Your task to perform on an android device: Open location settings Image 0: 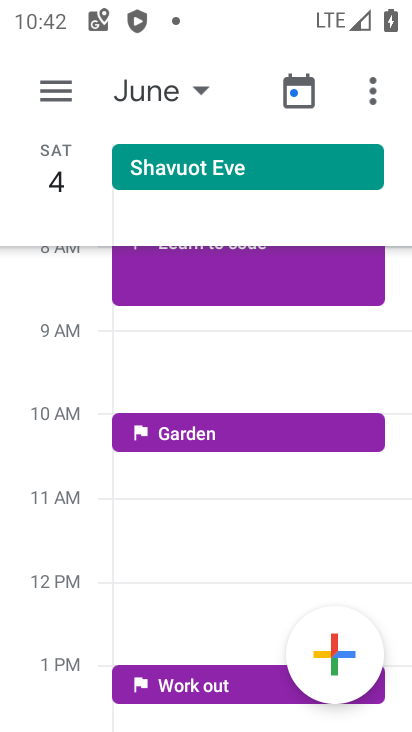
Step 0: press home button
Your task to perform on an android device: Open location settings Image 1: 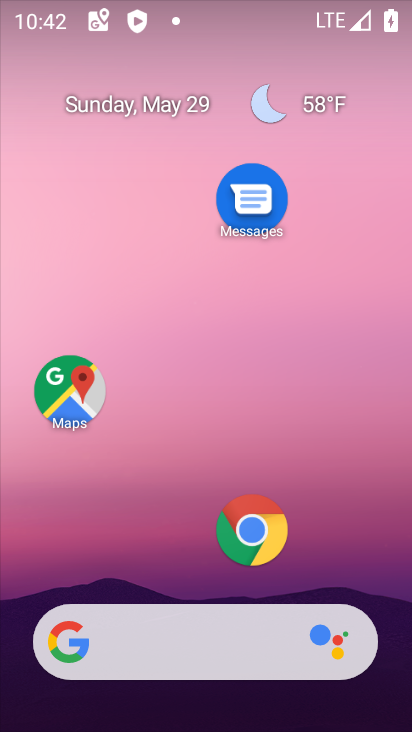
Step 1: drag from (217, 529) to (242, 33)
Your task to perform on an android device: Open location settings Image 2: 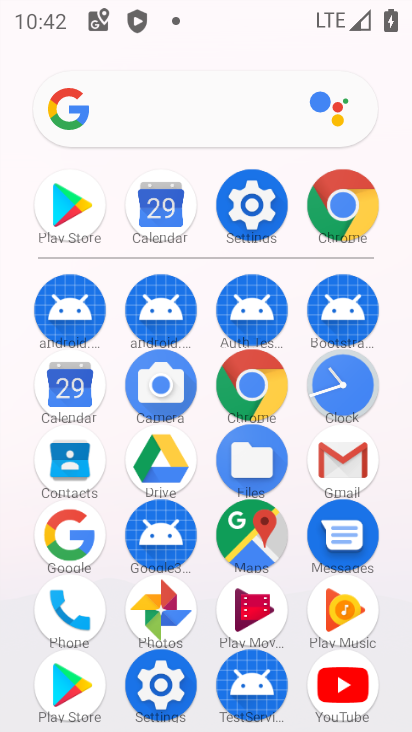
Step 2: click (247, 212)
Your task to perform on an android device: Open location settings Image 3: 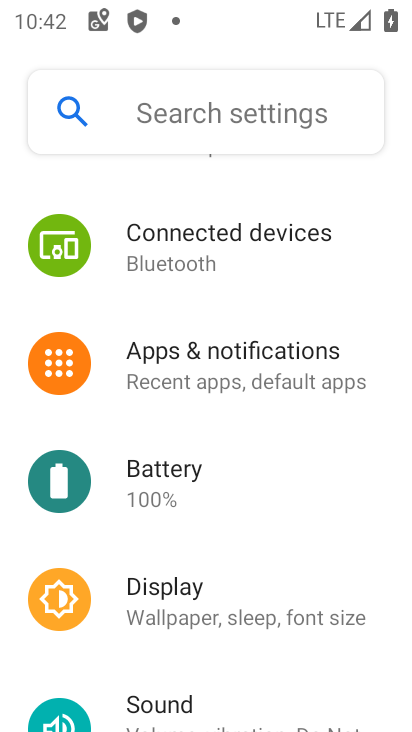
Step 3: drag from (212, 631) to (257, 332)
Your task to perform on an android device: Open location settings Image 4: 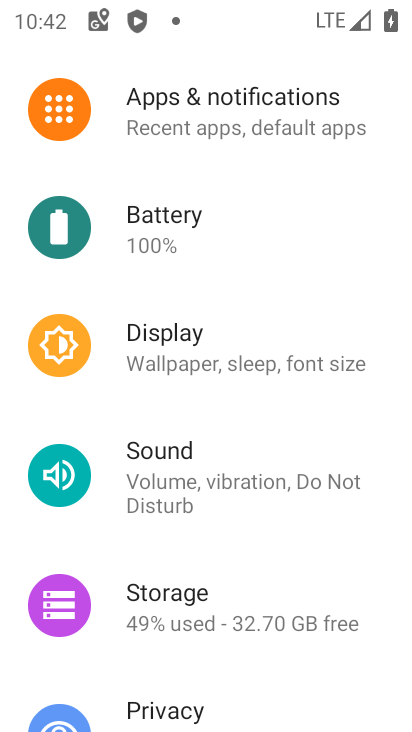
Step 4: drag from (182, 602) to (243, 183)
Your task to perform on an android device: Open location settings Image 5: 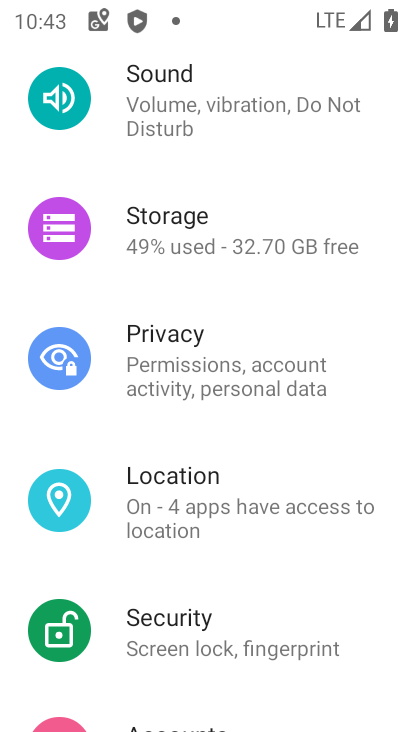
Step 5: click (171, 500)
Your task to perform on an android device: Open location settings Image 6: 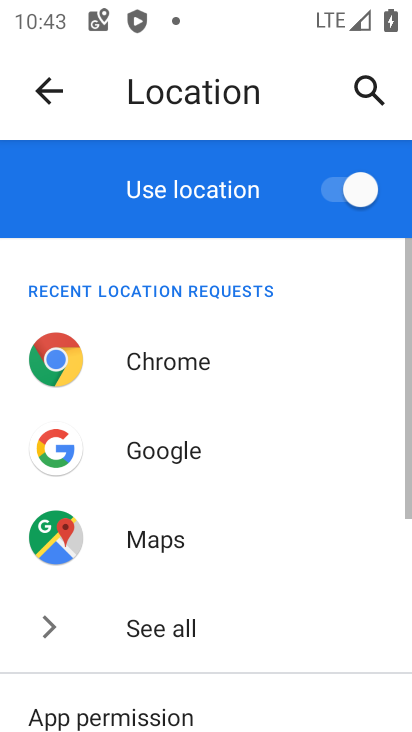
Step 6: task complete